Your task to perform on an android device: Search for lenovo thinkpad on target.com, select the first entry, and add it to the cart. Image 0: 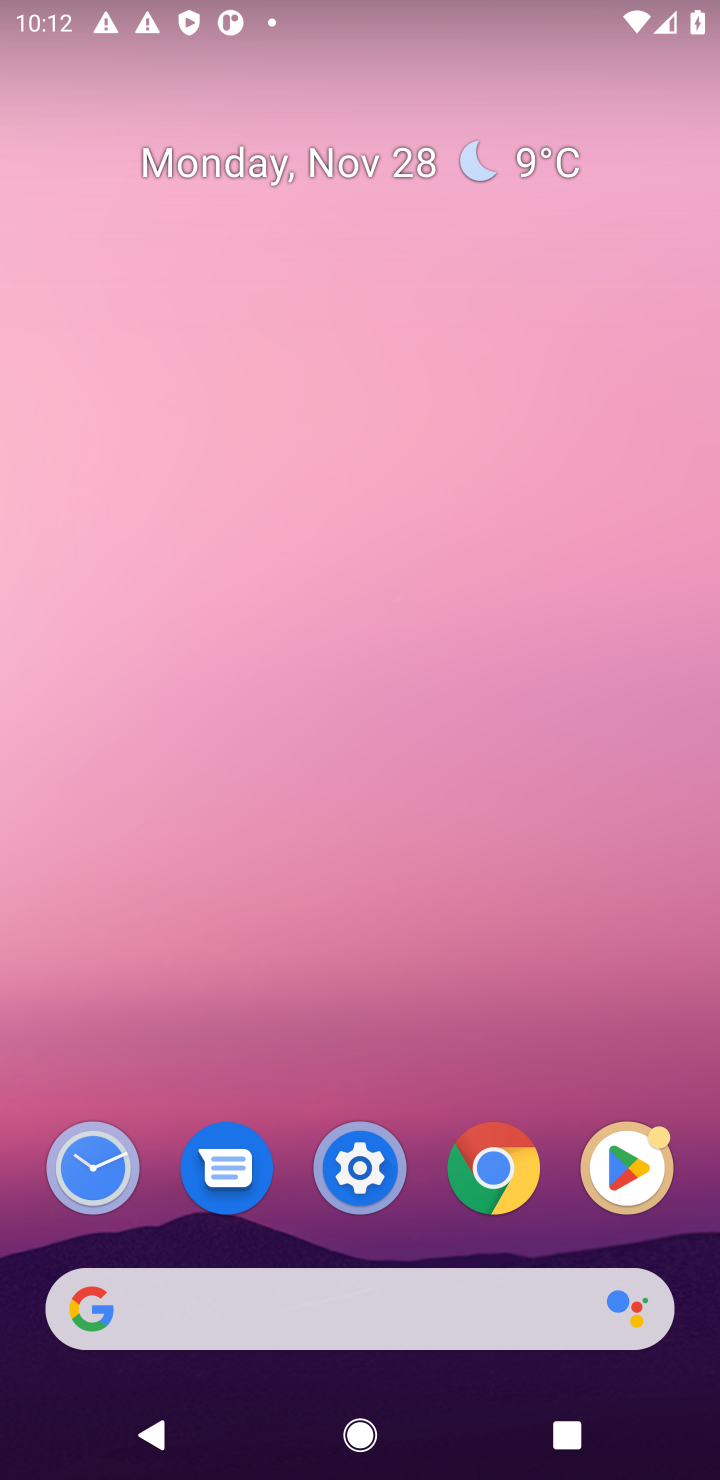
Step 0: click (213, 1343)
Your task to perform on an android device: Search for lenovo thinkpad on target.com, select the first entry, and add it to the cart. Image 1: 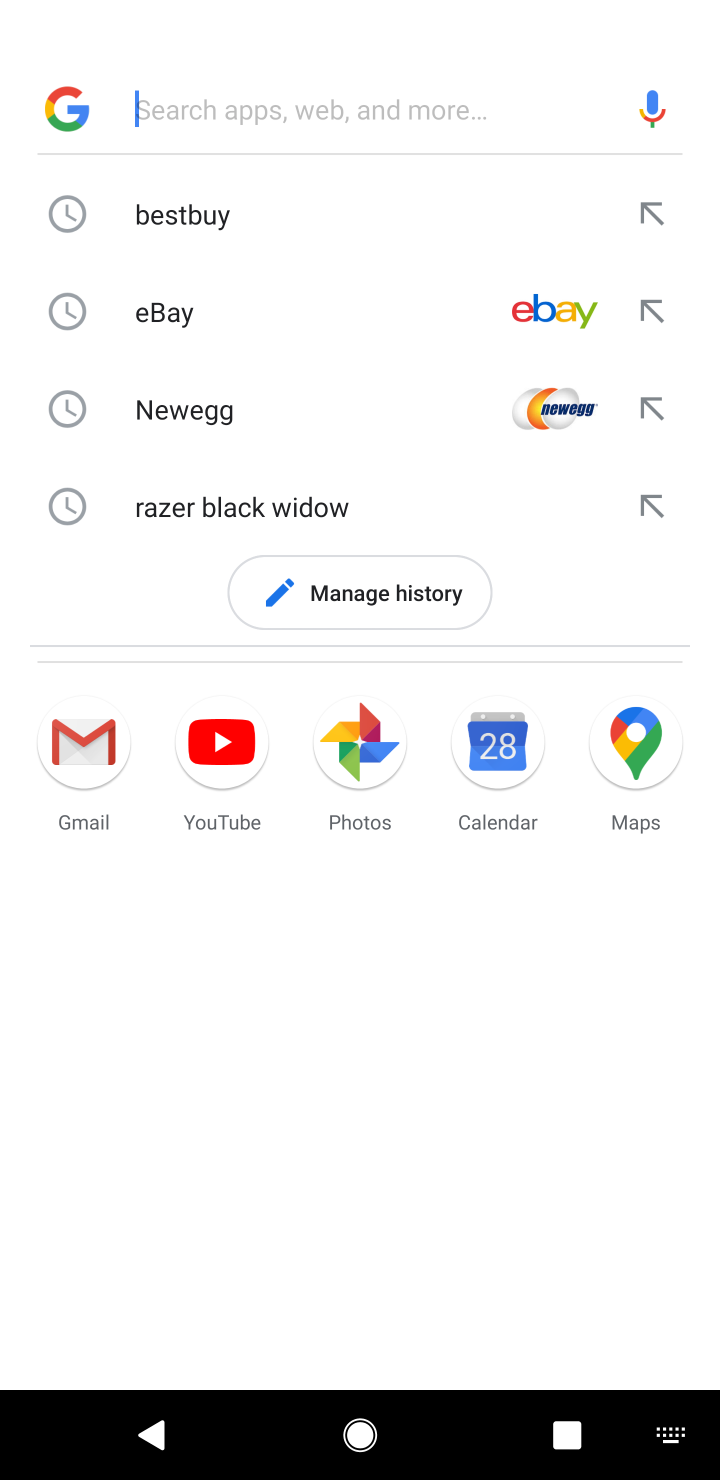
Step 1: type "target"
Your task to perform on an android device: Search for lenovo thinkpad on target.com, select the first entry, and add it to the cart. Image 2: 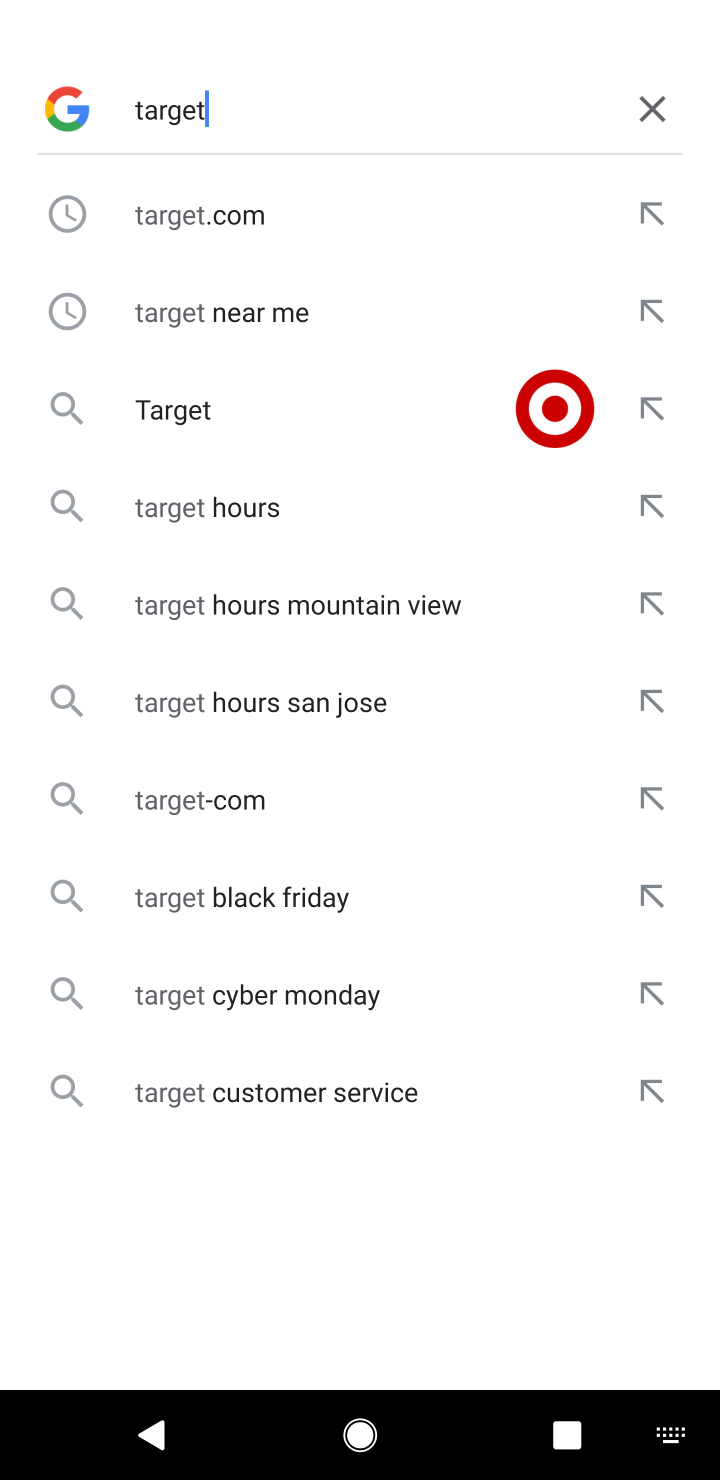
Step 2: click (283, 249)
Your task to perform on an android device: Search for lenovo thinkpad on target.com, select the first entry, and add it to the cart. Image 3: 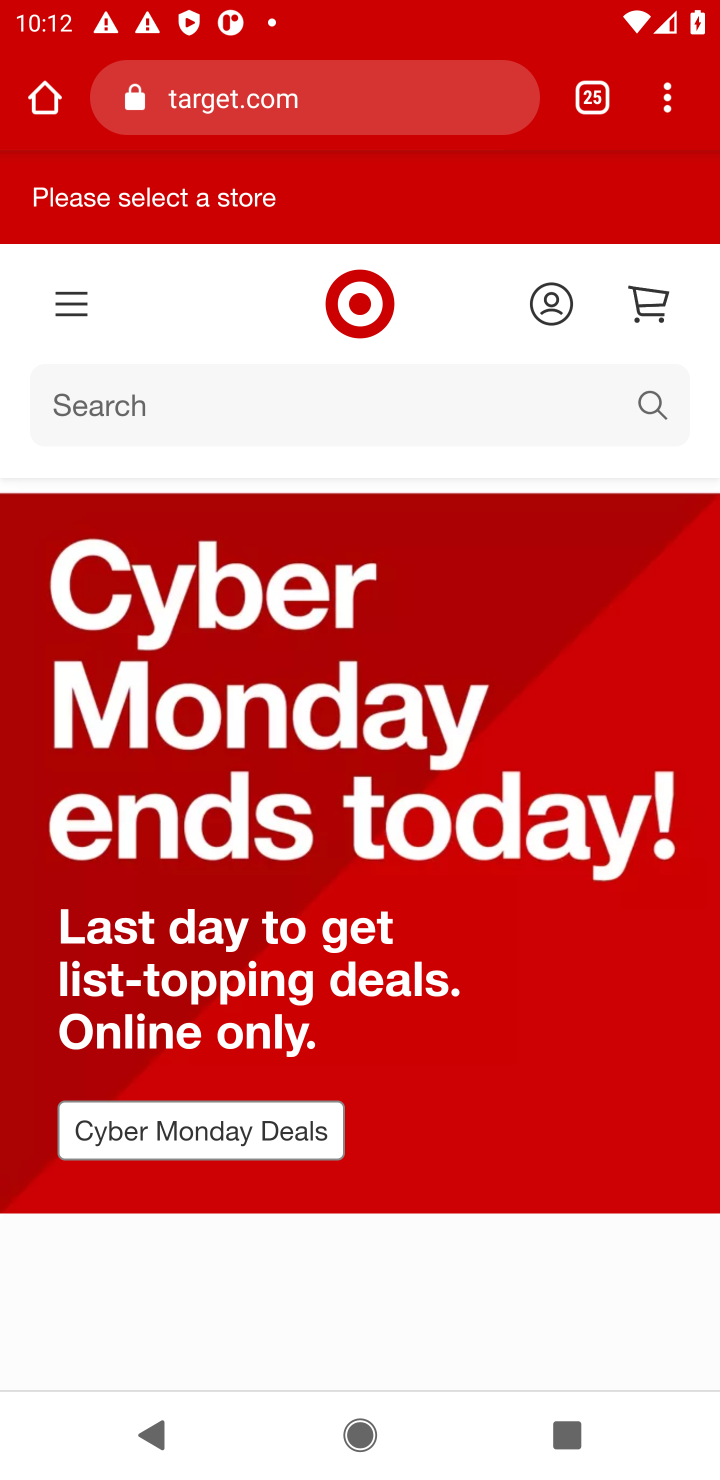
Step 3: task complete